Your task to perform on an android device: turn on improve location accuracy Image 0: 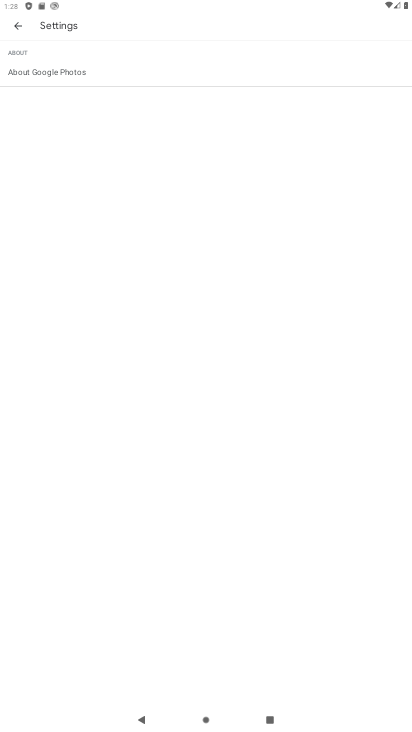
Step 0: press home button
Your task to perform on an android device: turn on improve location accuracy Image 1: 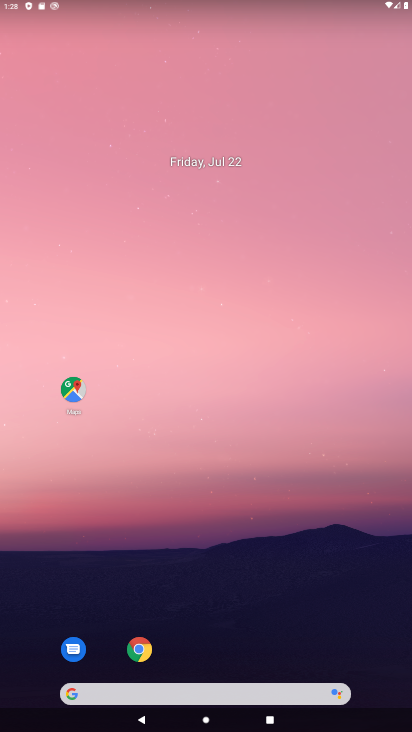
Step 1: drag from (339, 603) to (191, 0)
Your task to perform on an android device: turn on improve location accuracy Image 2: 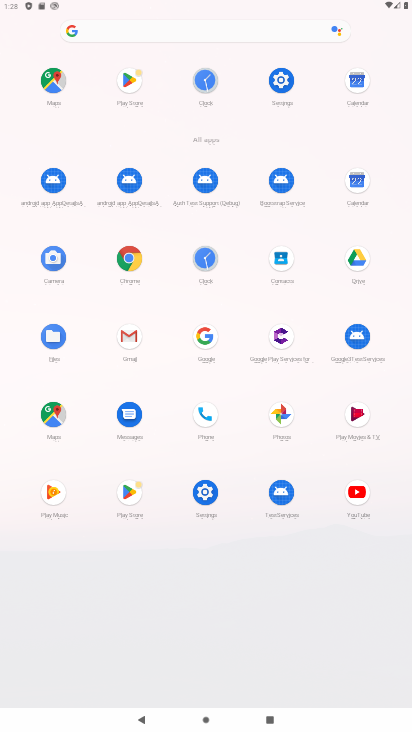
Step 2: click (207, 487)
Your task to perform on an android device: turn on improve location accuracy Image 3: 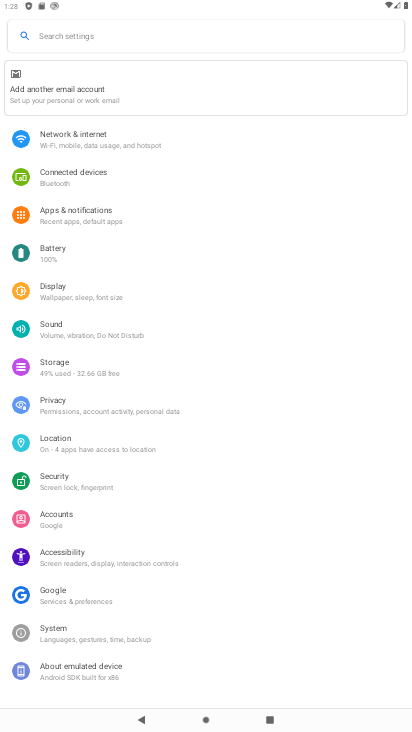
Step 3: click (68, 438)
Your task to perform on an android device: turn on improve location accuracy Image 4: 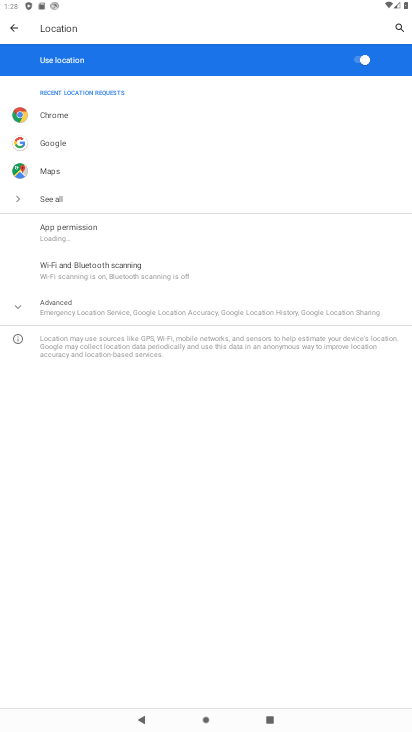
Step 4: click (68, 315)
Your task to perform on an android device: turn on improve location accuracy Image 5: 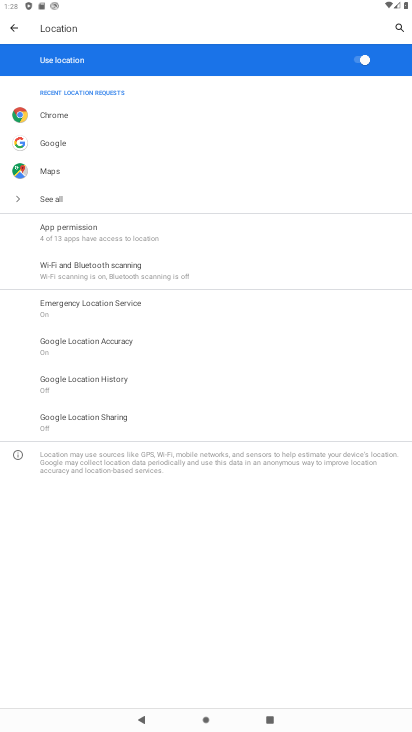
Step 5: click (95, 338)
Your task to perform on an android device: turn on improve location accuracy Image 6: 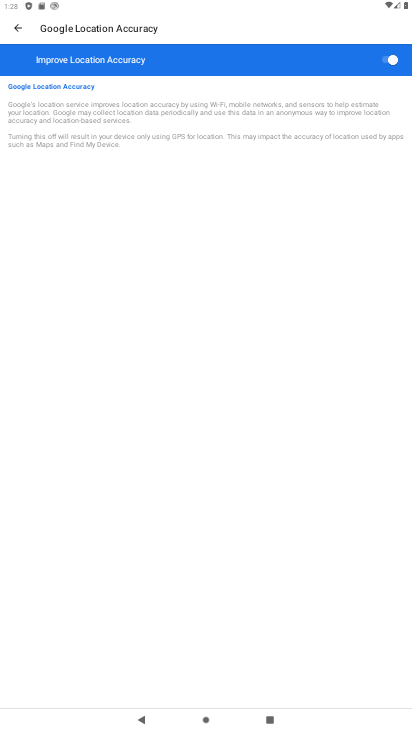
Step 6: task complete